Your task to perform on an android device: turn on location history Image 0: 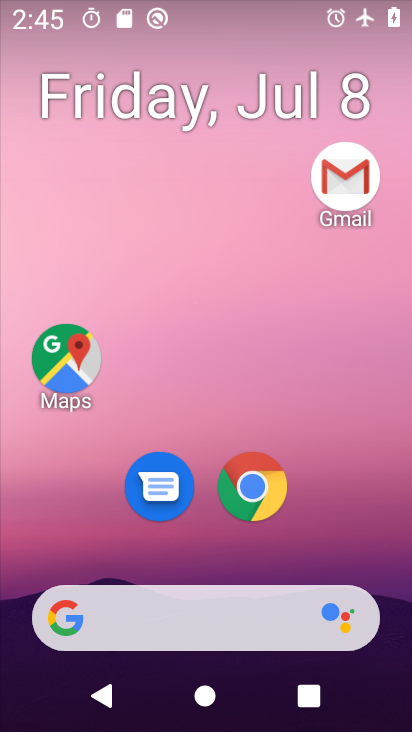
Step 0: drag from (340, 535) to (323, 116)
Your task to perform on an android device: turn on location history Image 1: 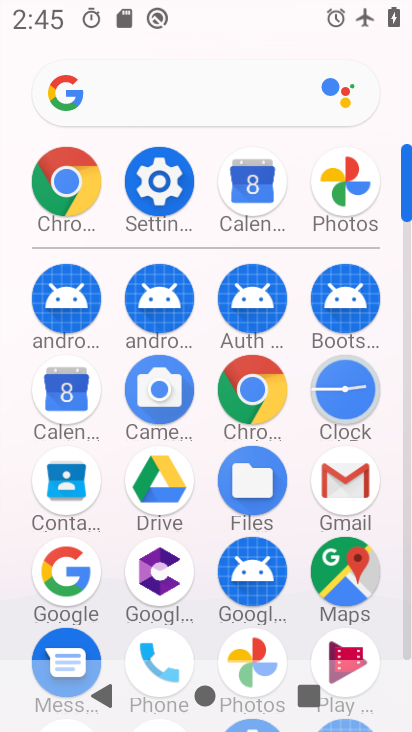
Step 1: click (170, 199)
Your task to perform on an android device: turn on location history Image 2: 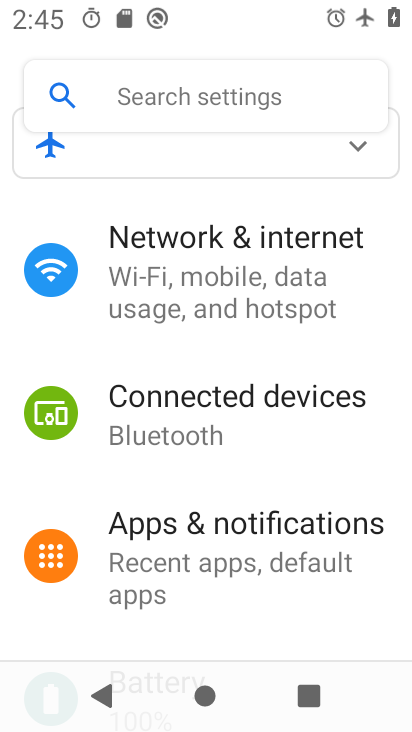
Step 2: drag from (361, 443) to (368, 344)
Your task to perform on an android device: turn on location history Image 3: 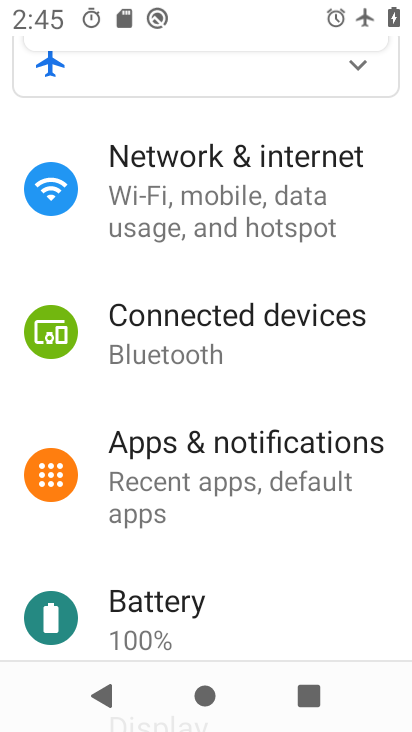
Step 3: drag from (374, 504) to (377, 382)
Your task to perform on an android device: turn on location history Image 4: 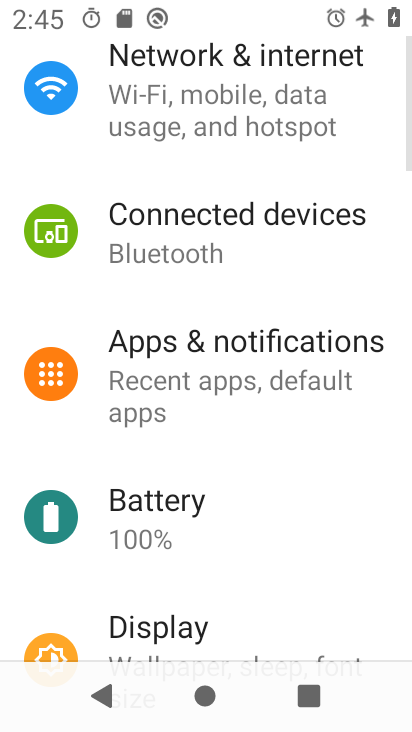
Step 4: drag from (362, 515) to (360, 383)
Your task to perform on an android device: turn on location history Image 5: 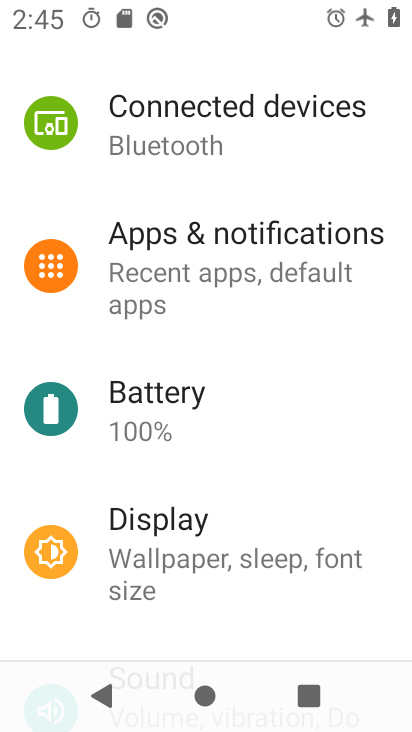
Step 5: drag from (378, 588) to (369, 357)
Your task to perform on an android device: turn on location history Image 6: 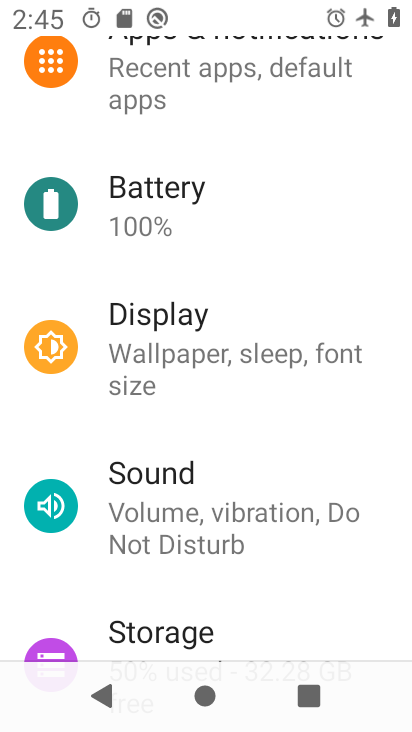
Step 6: drag from (344, 568) to (342, 434)
Your task to perform on an android device: turn on location history Image 7: 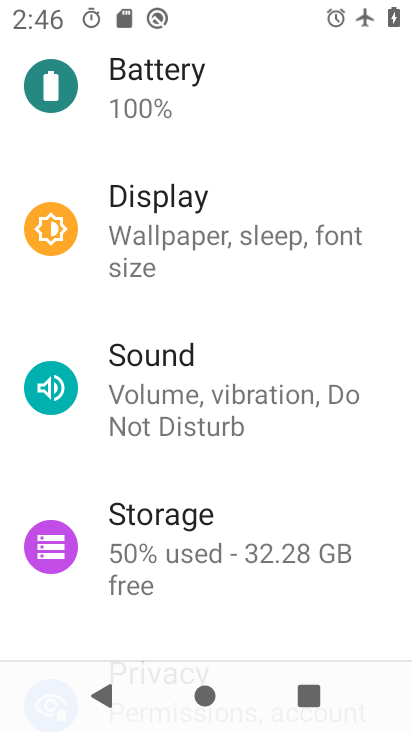
Step 7: drag from (358, 616) to (356, 434)
Your task to perform on an android device: turn on location history Image 8: 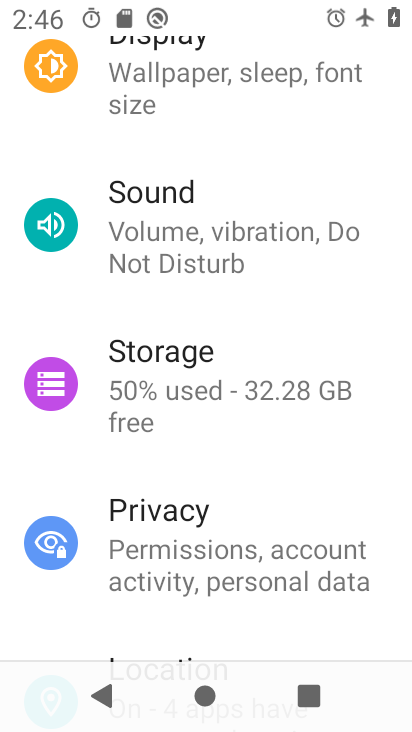
Step 8: drag from (348, 498) to (347, 328)
Your task to perform on an android device: turn on location history Image 9: 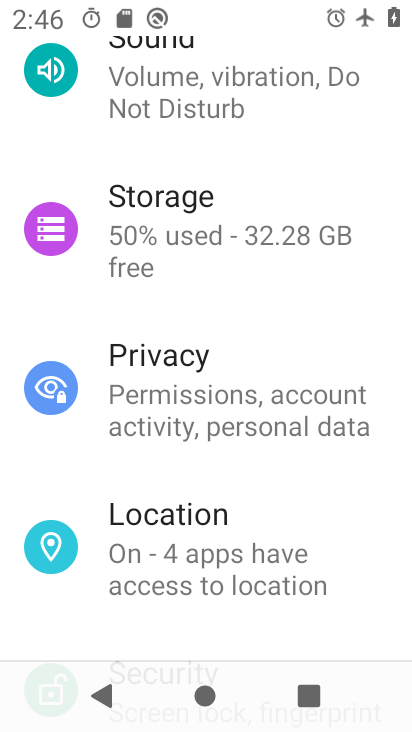
Step 9: drag from (360, 540) to (353, 382)
Your task to perform on an android device: turn on location history Image 10: 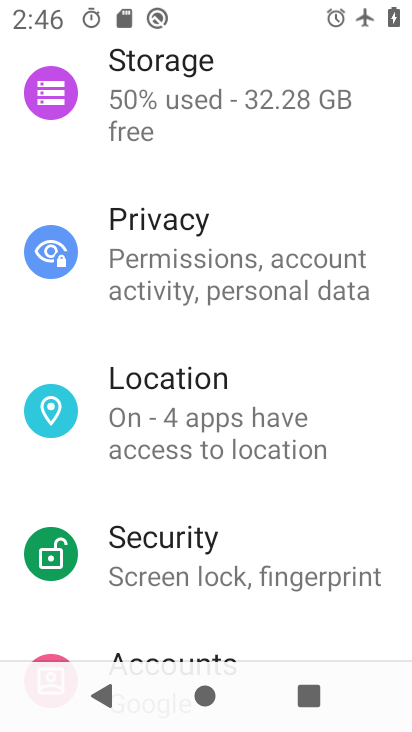
Step 10: drag from (366, 601) to (373, 397)
Your task to perform on an android device: turn on location history Image 11: 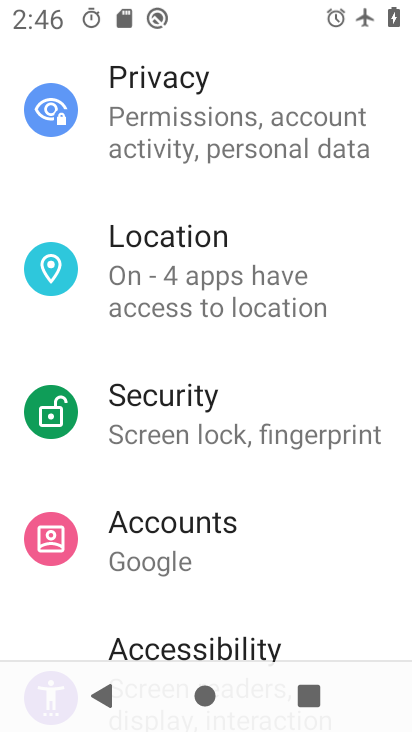
Step 11: drag from (357, 523) to (353, 367)
Your task to perform on an android device: turn on location history Image 12: 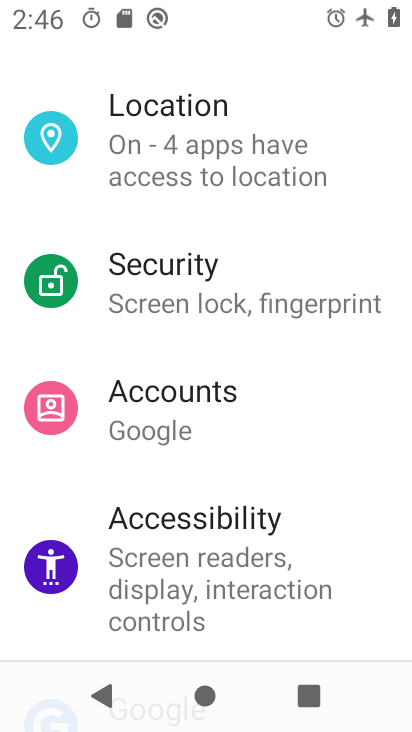
Step 12: drag from (321, 224) to (329, 338)
Your task to perform on an android device: turn on location history Image 13: 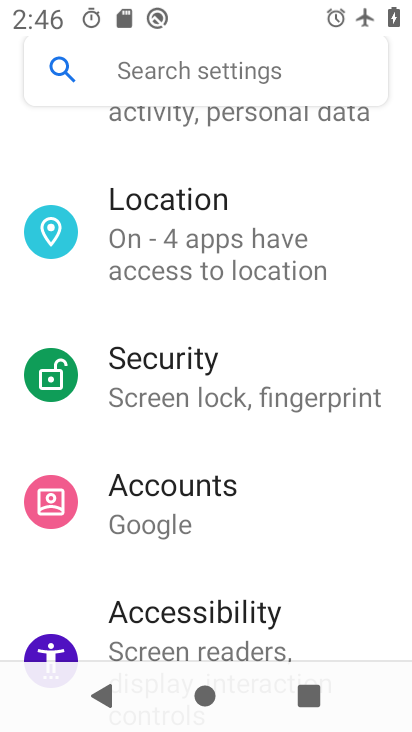
Step 13: drag from (353, 221) to (335, 395)
Your task to perform on an android device: turn on location history Image 14: 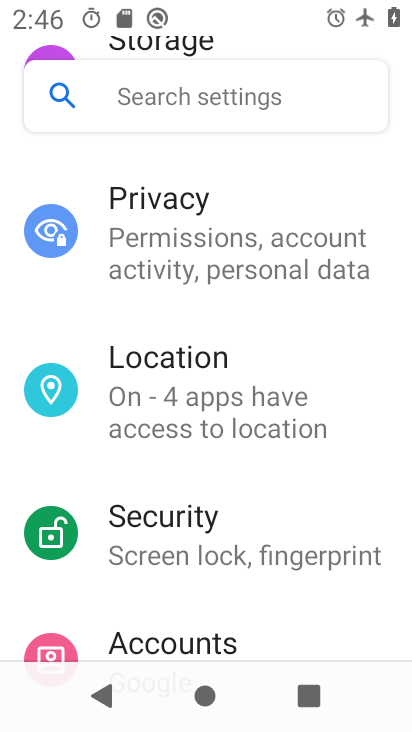
Step 14: drag from (353, 299) to (348, 446)
Your task to perform on an android device: turn on location history Image 15: 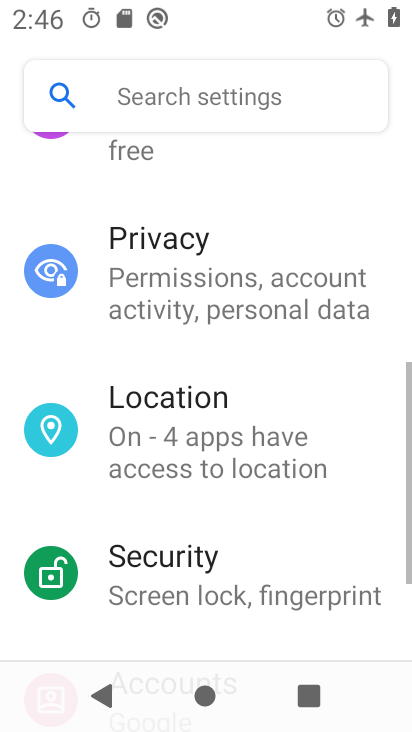
Step 15: click (221, 449)
Your task to perform on an android device: turn on location history Image 16: 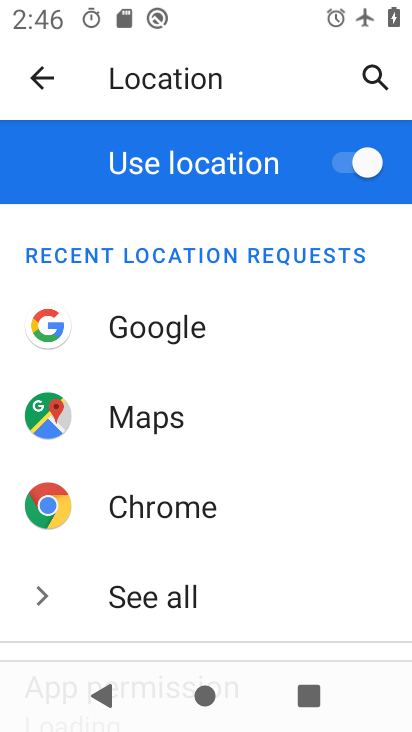
Step 16: drag from (332, 513) to (334, 368)
Your task to perform on an android device: turn on location history Image 17: 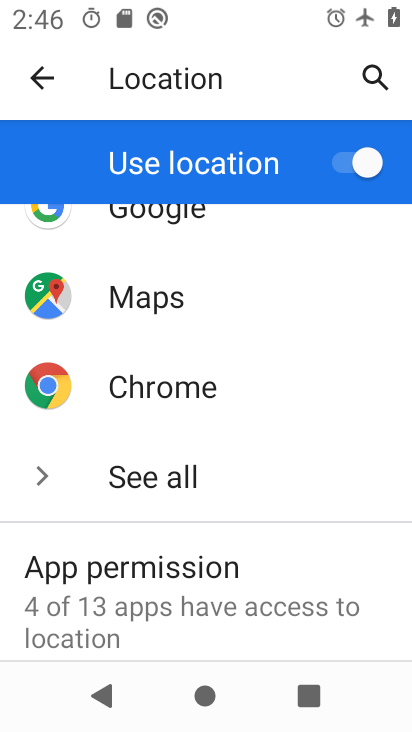
Step 17: drag from (335, 523) to (324, 297)
Your task to perform on an android device: turn on location history Image 18: 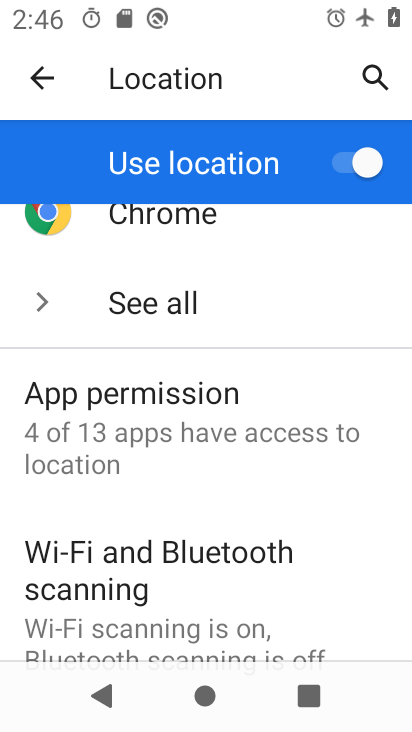
Step 18: drag from (344, 519) to (335, 355)
Your task to perform on an android device: turn on location history Image 19: 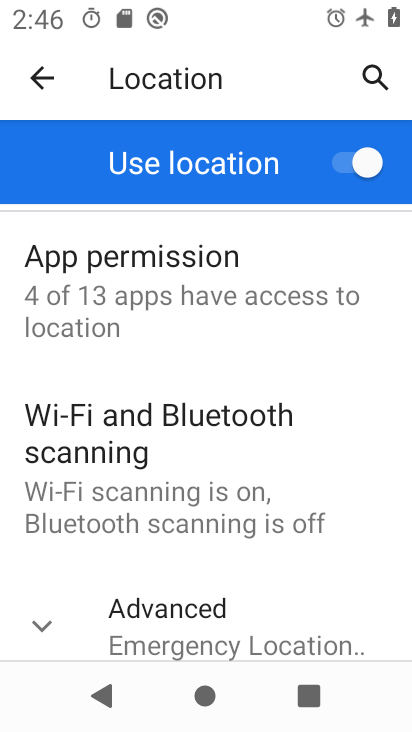
Step 19: drag from (348, 554) to (335, 433)
Your task to perform on an android device: turn on location history Image 20: 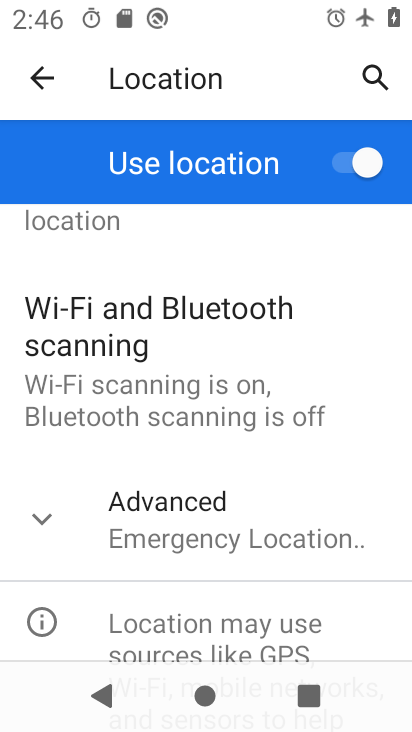
Step 20: click (249, 521)
Your task to perform on an android device: turn on location history Image 21: 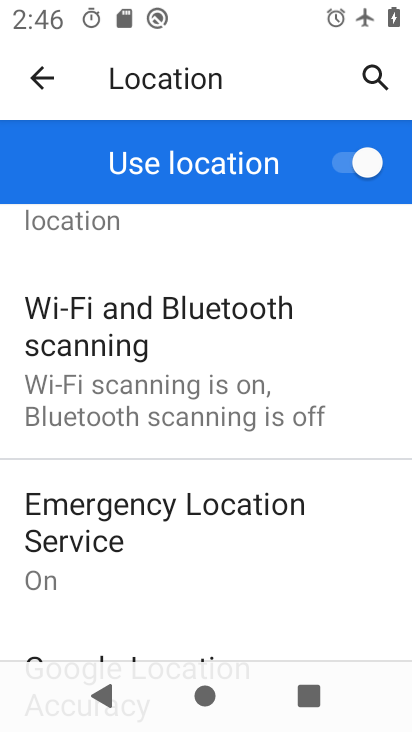
Step 21: drag from (351, 590) to (335, 387)
Your task to perform on an android device: turn on location history Image 22: 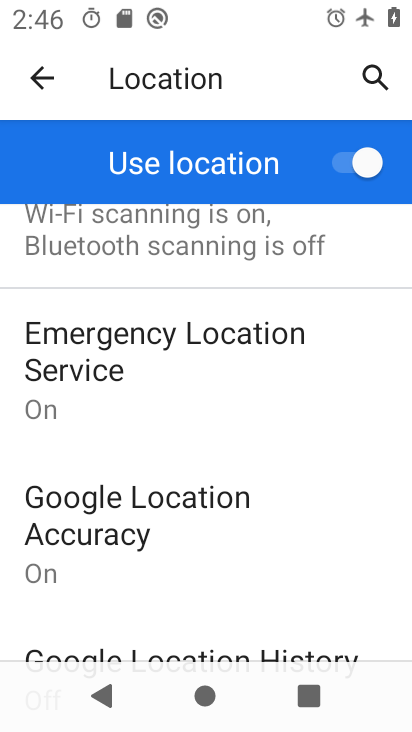
Step 22: drag from (341, 559) to (324, 409)
Your task to perform on an android device: turn on location history Image 23: 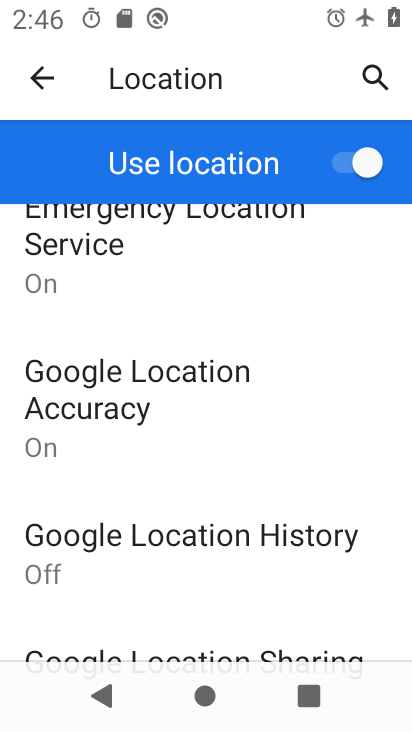
Step 23: drag from (357, 598) to (340, 482)
Your task to perform on an android device: turn on location history Image 24: 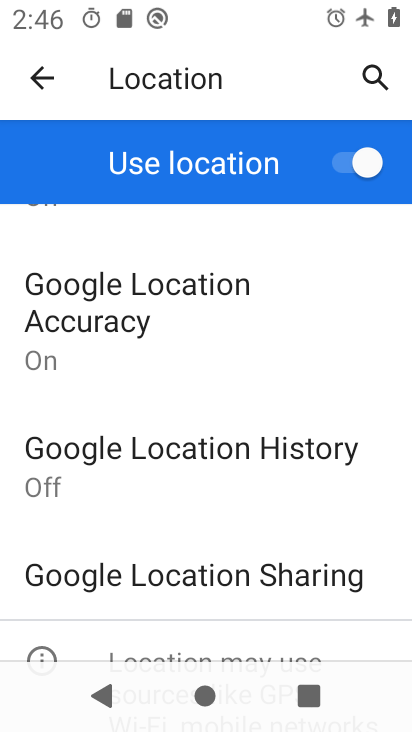
Step 24: click (208, 468)
Your task to perform on an android device: turn on location history Image 25: 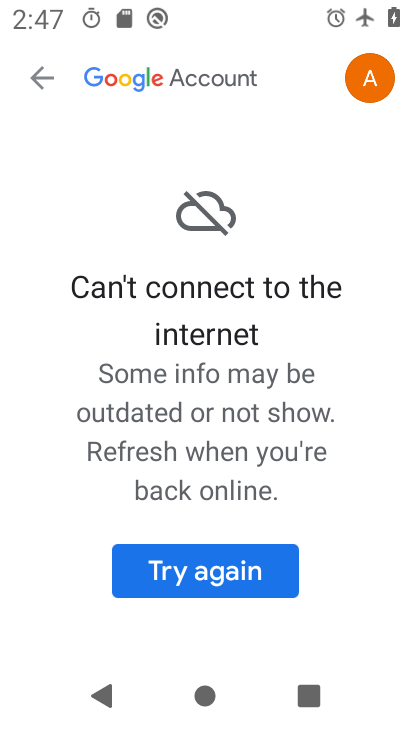
Step 25: task complete